Your task to perform on an android device: open app "Venmo" (install if not already installed) and go to login screen Image 0: 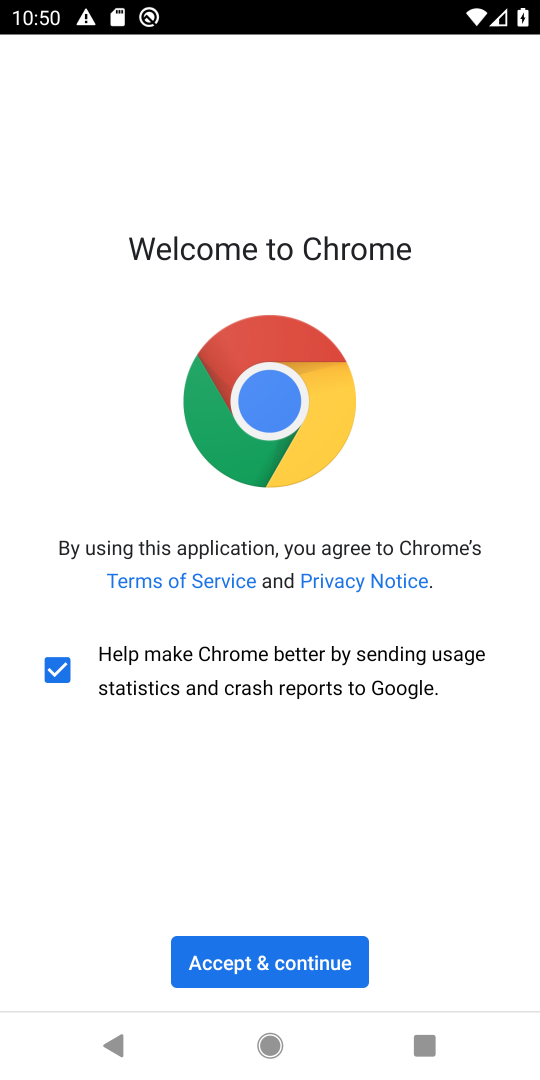
Step 0: press home button
Your task to perform on an android device: open app "Venmo" (install if not already installed) and go to login screen Image 1: 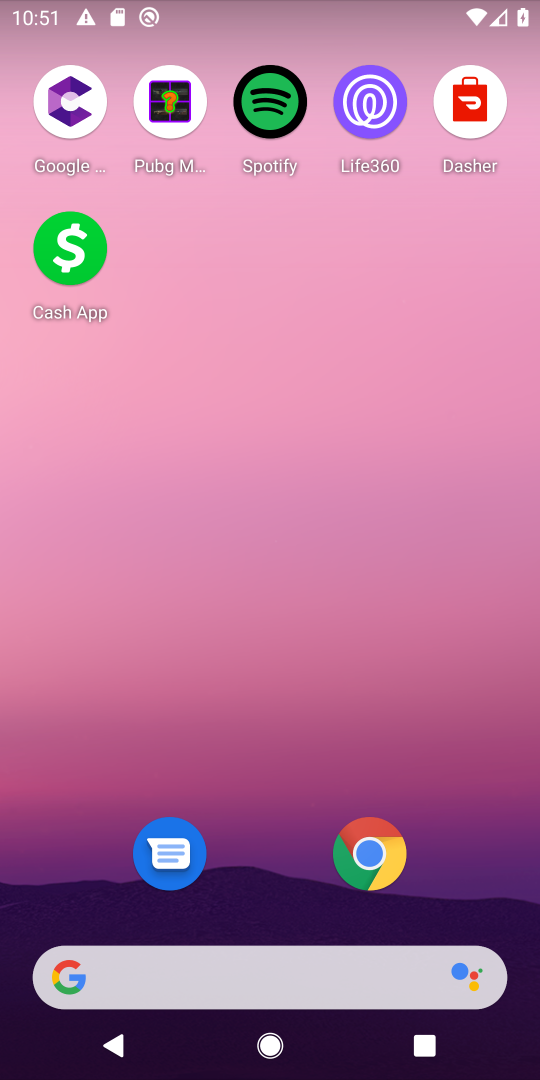
Step 1: drag from (88, 898) to (246, 72)
Your task to perform on an android device: open app "Venmo" (install if not already installed) and go to login screen Image 2: 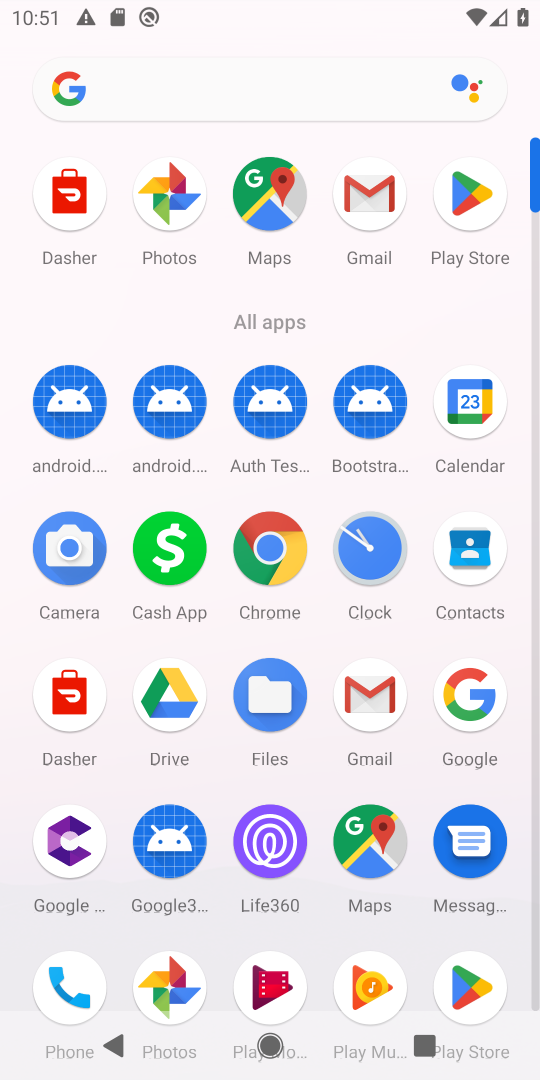
Step 2: click (456, 193)
Your task to perform on an android device: open app "Venmo" (install if not already installed) and go to login screen Image 3: 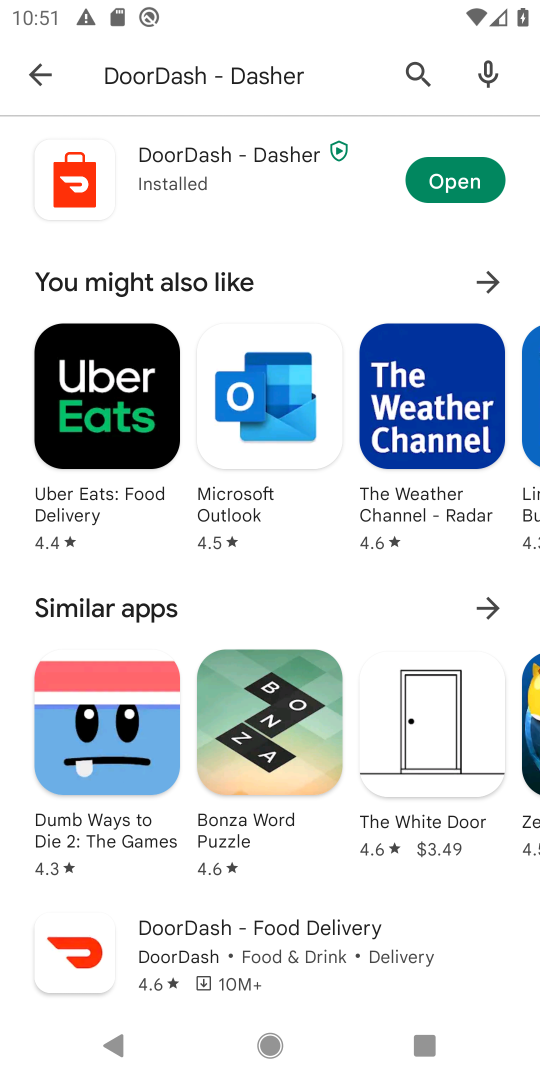
Step 3: press back button
Your task to perform on an android device: open app "Venmo" (install if not already installed) and go to login screen Image 4: 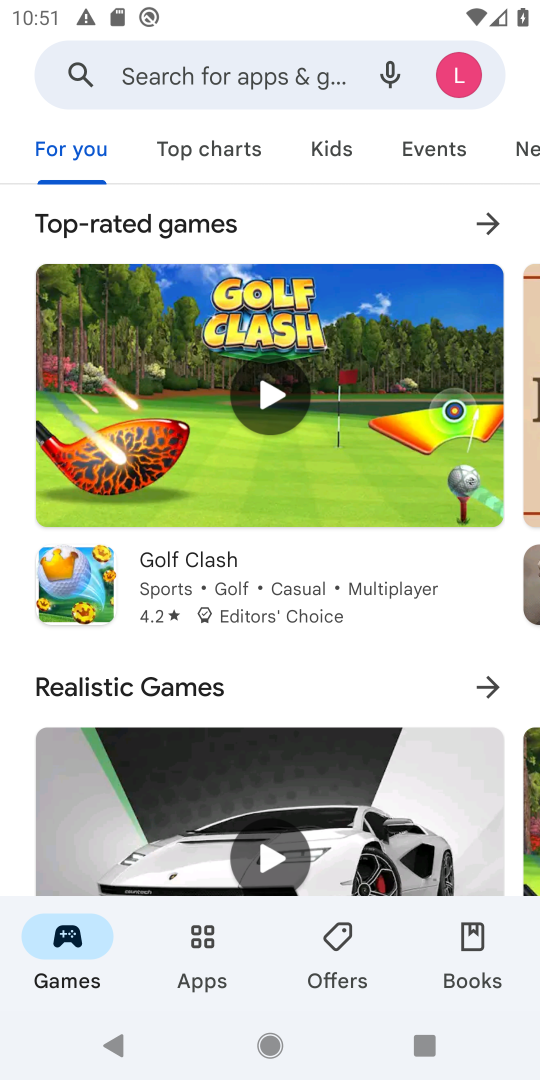
Step 4: click (163, 56)
Your task to perform on an android device: open app "Venmo" (install if not already installed) and go to login screen Image 5: 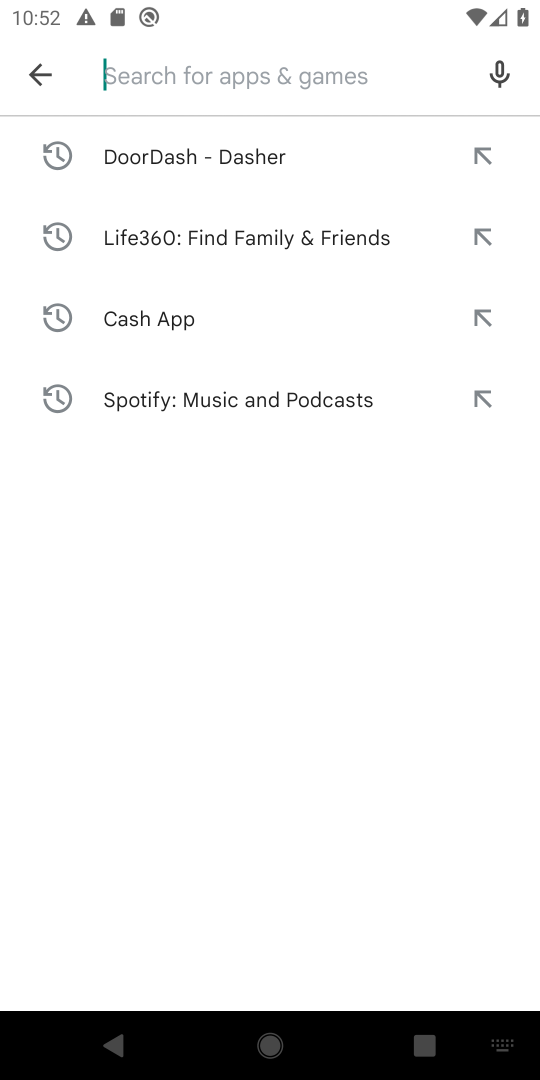
Step 5: type "Venmo"
Your task to perform on an android device: open app "Venmo" (install if not already installed) and go to login screen Image 6: 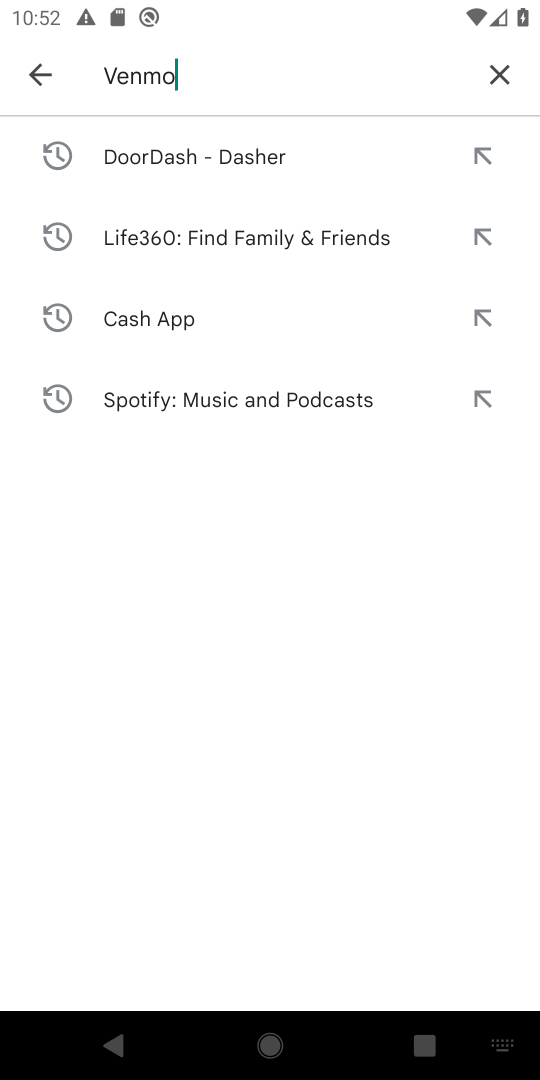
Step 6: press enter
Your task to perform on an android device: open app "Venmo" (install if not already installed) and go to login screen Image 7: 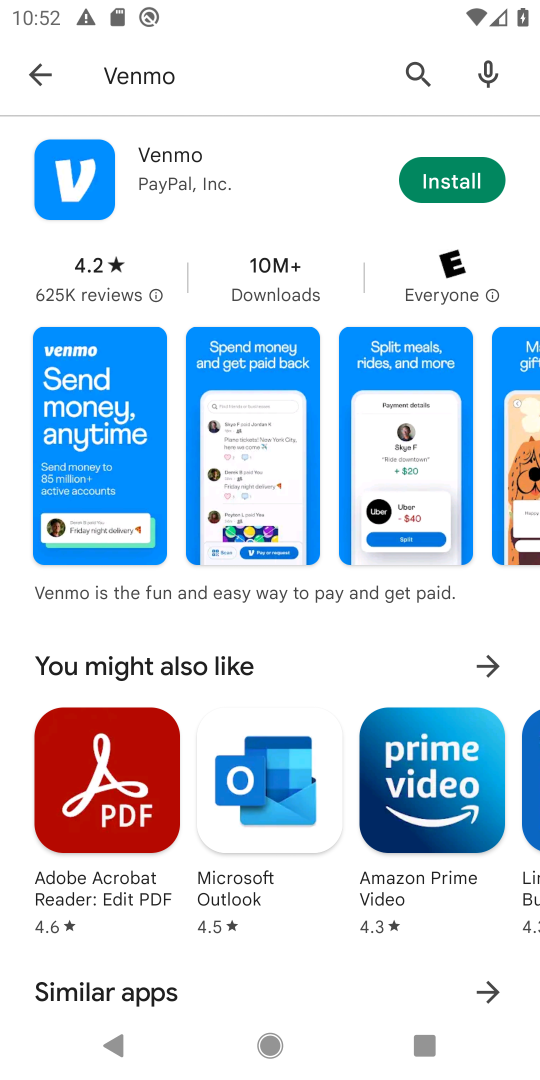
Step 7: click (460, 188)
Your task to perform on an android device: open app "Venmo" (install if not already installed) and go to login screen Image 8: 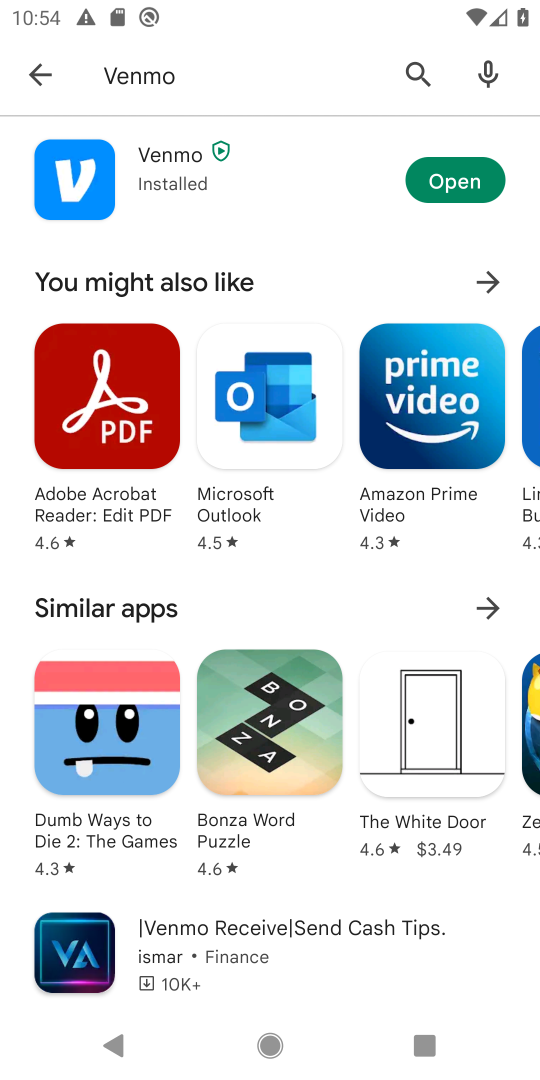
Step 8: click (447, 187)
Your task to perform on an android device: open app "Venmo" (install if not already installed) and go to login screen Image 9: 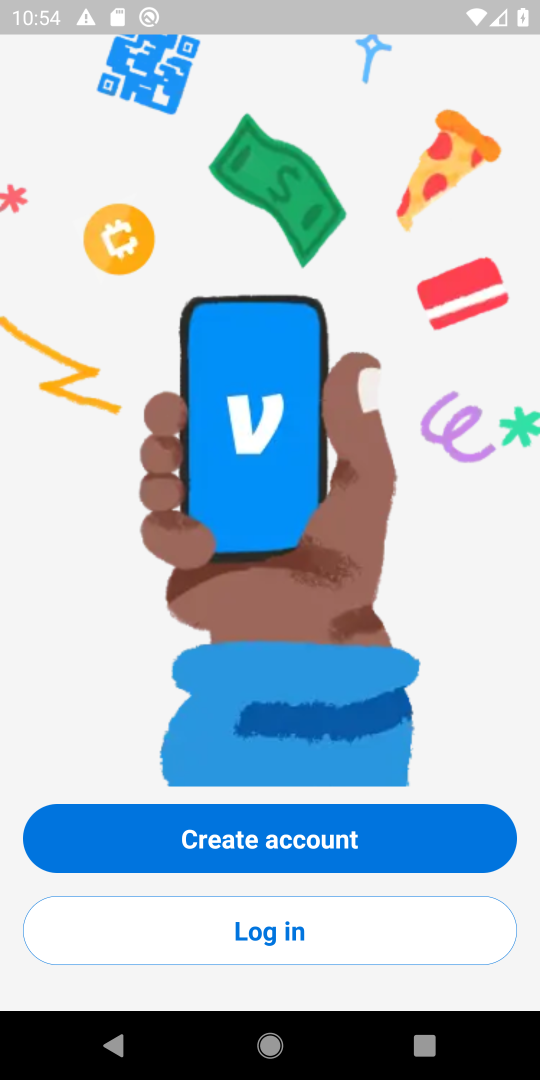
Step 9: task complete